Your task to perform on an android device: Open privacy settings Image 0: 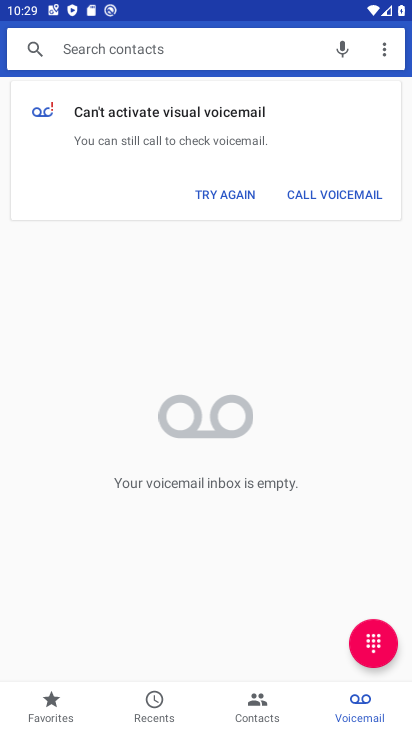
Step 0: press home button
Your task to perform on an android device: Open privacy settings Image 1: 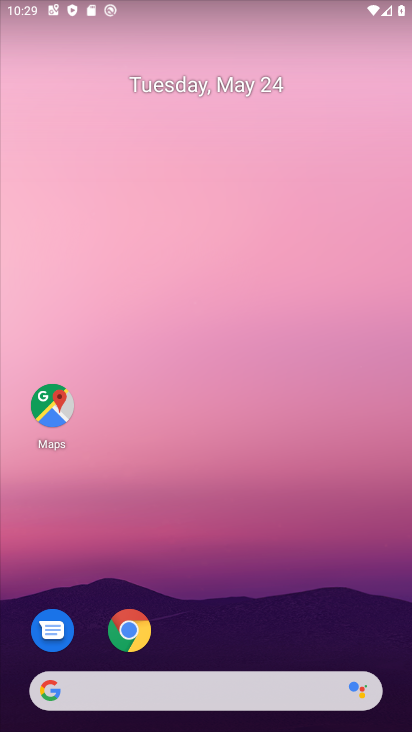
Step 1: drag from (227, 661) to (298, 117)
Your task to perform on an android device: Open privacy settings Image 2: 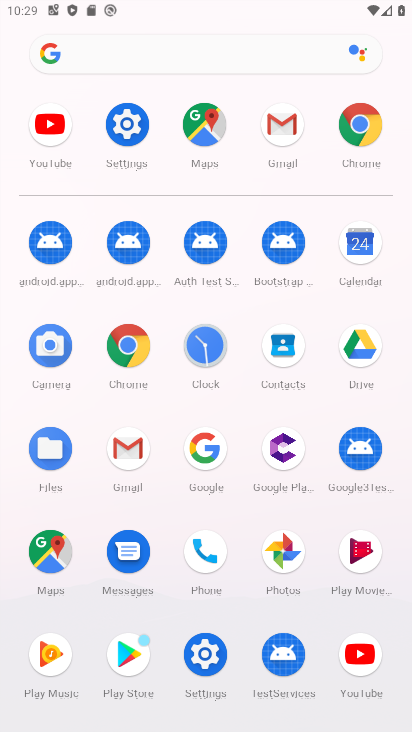
Step 2: click (127, 120)
Your task to perform on an android device: Open privacy settings Image 3: 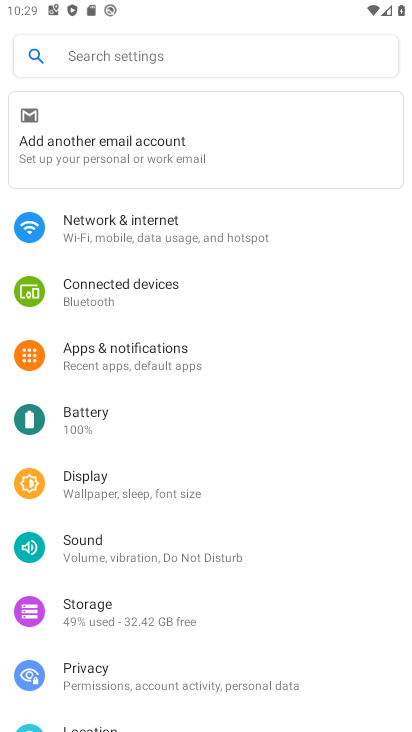
Step 3: click (115, 664)
Your task to perform on an android device: Open privacy settings Image 4: 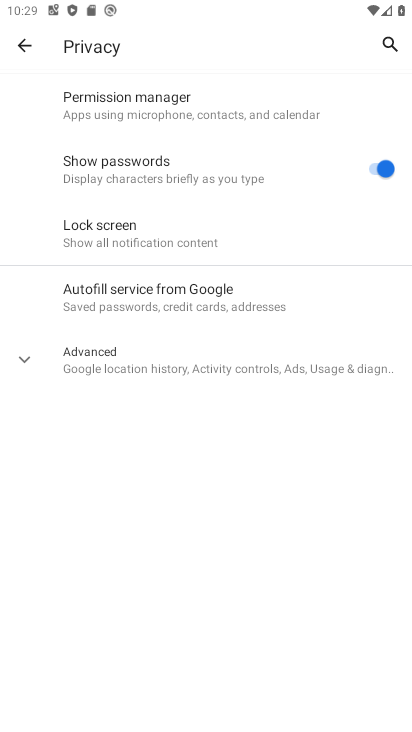
Step 4: click (21, 349)
Your task to perform on an android device: Open privacy settings Image 5: 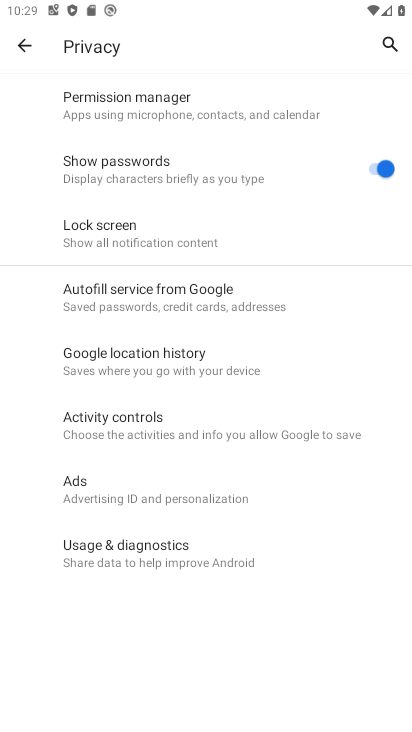
Step 5: task complete